Your task to perform on an android device: turn notification dots on Image 0: 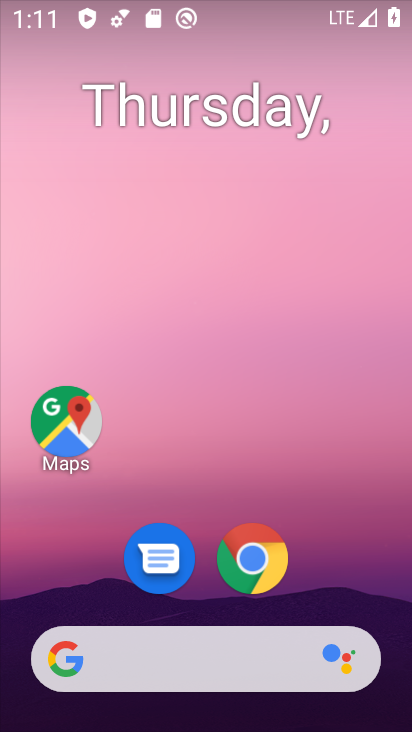
Step 0: drag from (330, 525) to (279, 159)
Your task to perform on an android device: turn notification dots on Image 1: 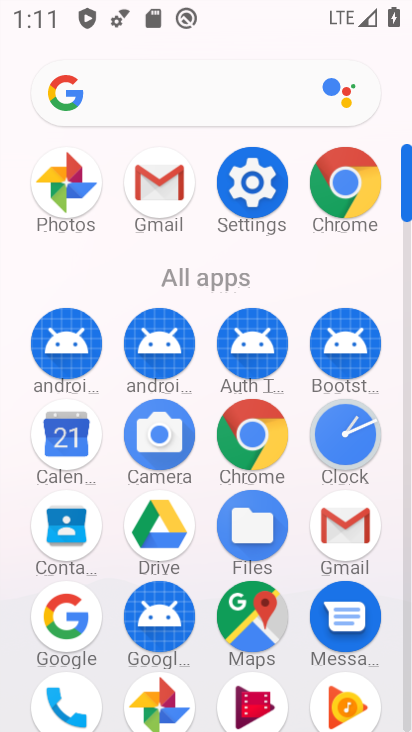
Step 1: click (281, 181)
Your task to perform on an android device: turn notification dots on Image 2: 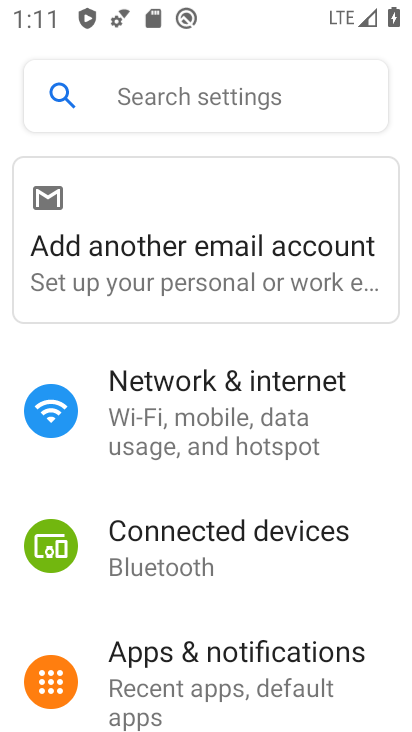
Step 2: click (232, 635)
Your task to perform on an android device: turn notification dots on Image 3: 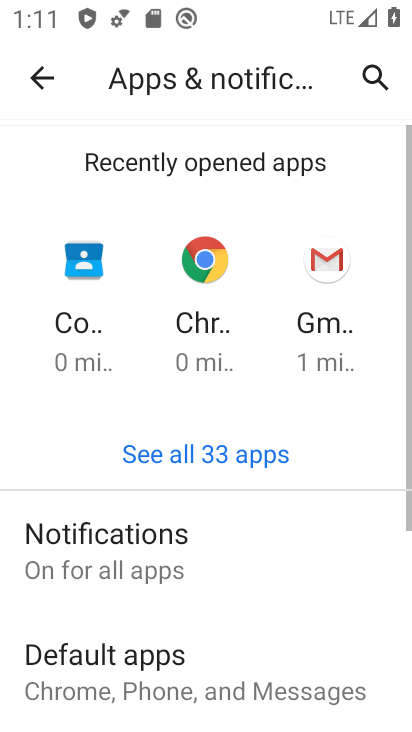
Step 3: click (173, 558)
Your task to perform on an android device: turn notification dots on Image 4: 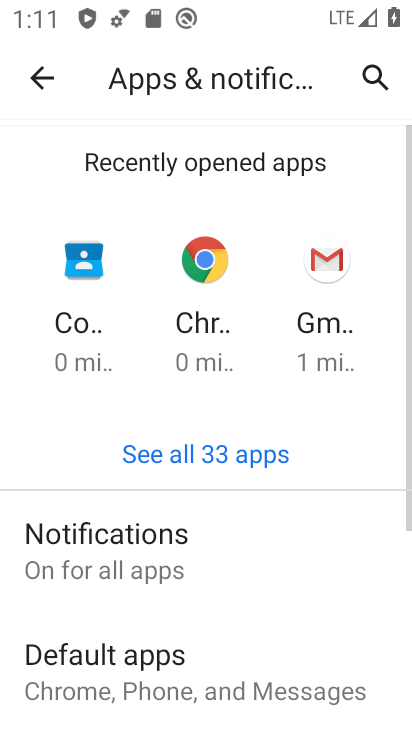
Step 4: drag from (262, 691) to (262, 190)
Your task to perform on an android device: turn notification dots on Image 5: 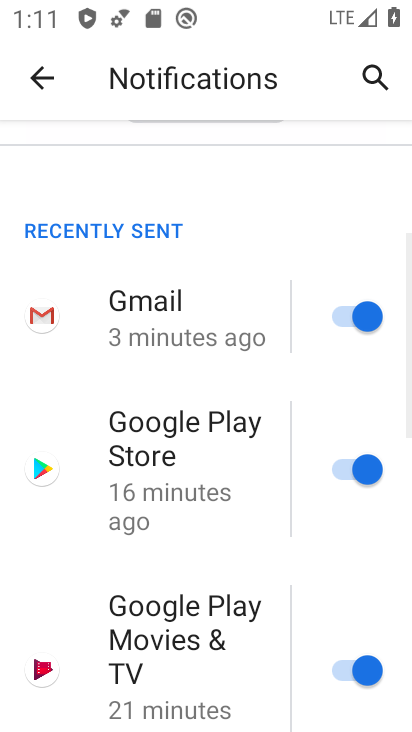
Step 5: drag from (252, 628) to (249, 168)
Your task to perform on an android device: turn notification dots on Image 6: 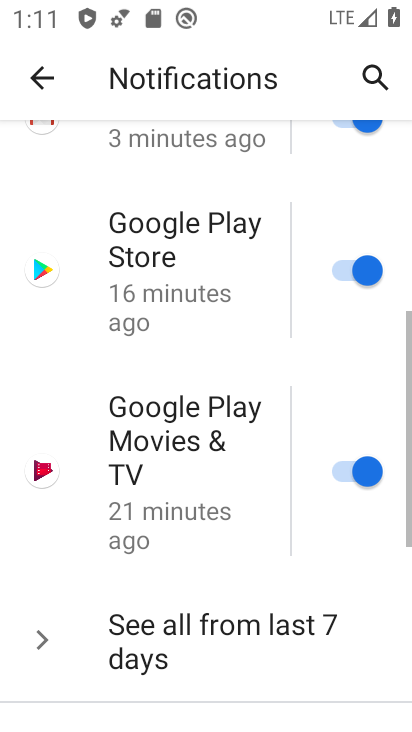
Step 6: drag from (268, 572) to (281, 170)
Your task to perform on an android device: turn notification dots on Image 7: 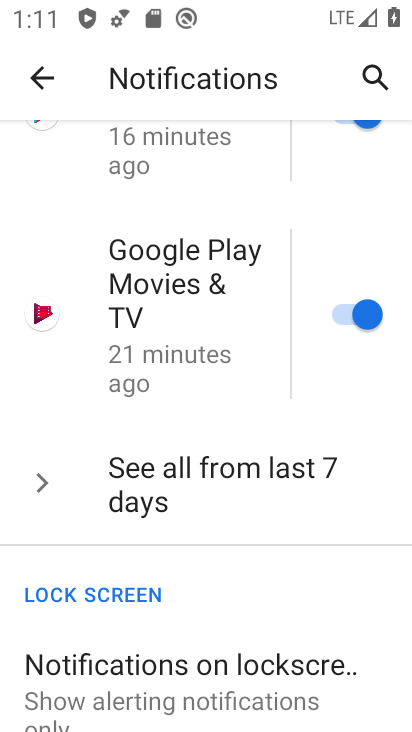
Step 7: drag from (236, 713) to (268, 374)
Your task to perform on an android device: turn notification dots on Image 8: 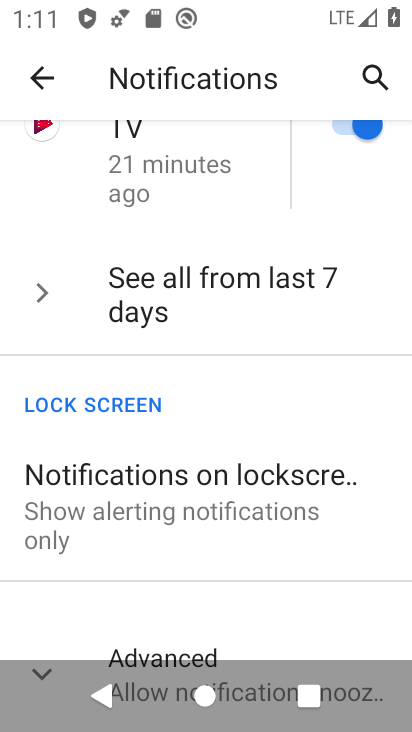
Step 8: click (208, 622)
Your task to perform on an android device: turn notification dots on Image 9: 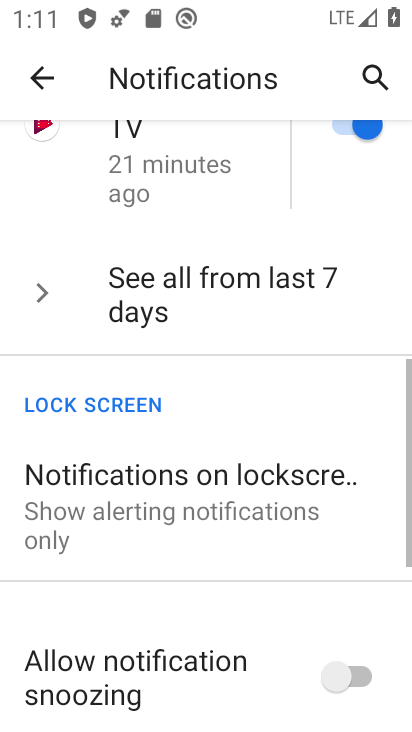
Step 9: task complete